Your task to perform on an android device: Open Amazon Image 0: 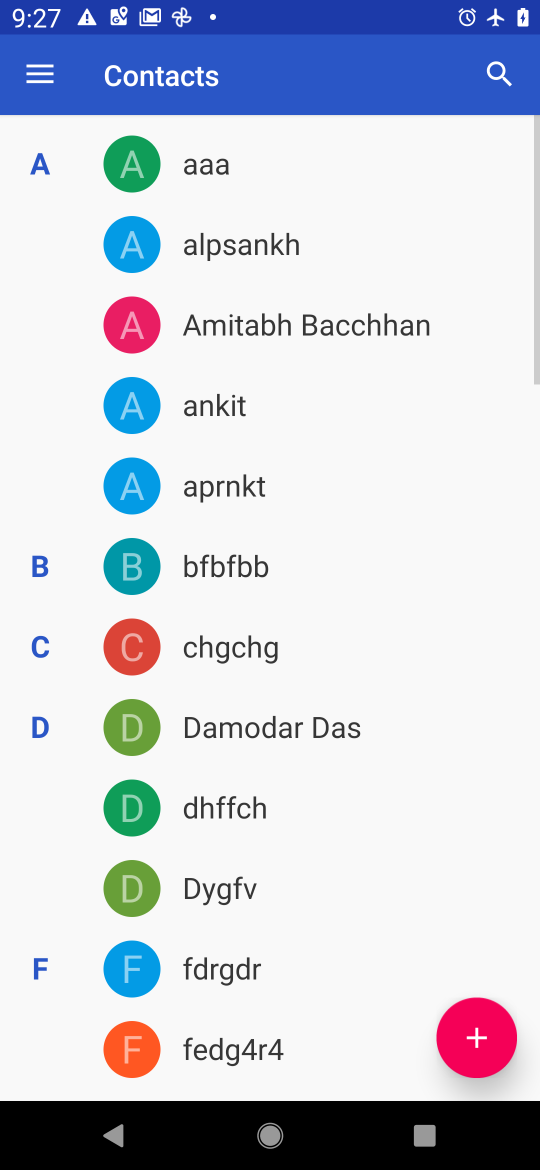
Step 0: press home button
Your task to perform on an android device: Open Amazon Image 1: 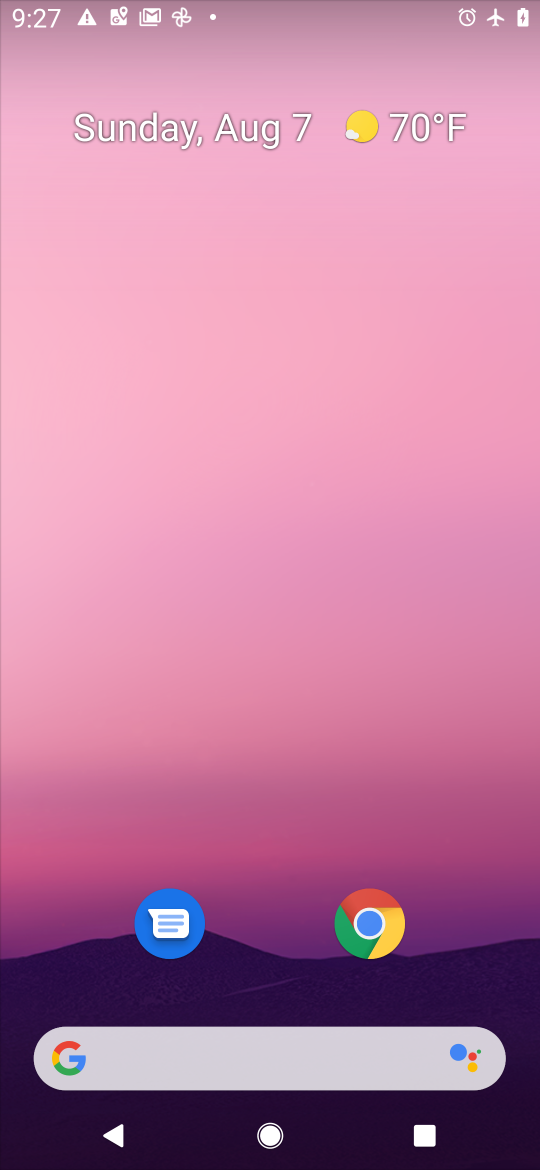
Step 1: drag from (496, 971) to (240, 36)
Your task to perform on an android device: Open Amazon Image 2: 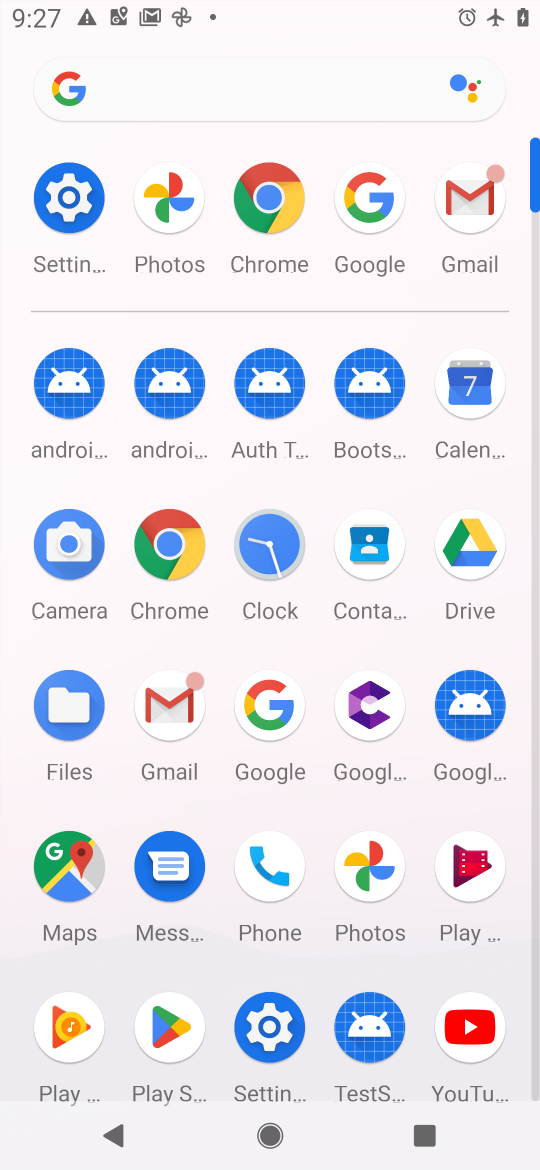
Step 2: click (375, 190)
Your task to perform on an android device: Open Amazon Image 3: 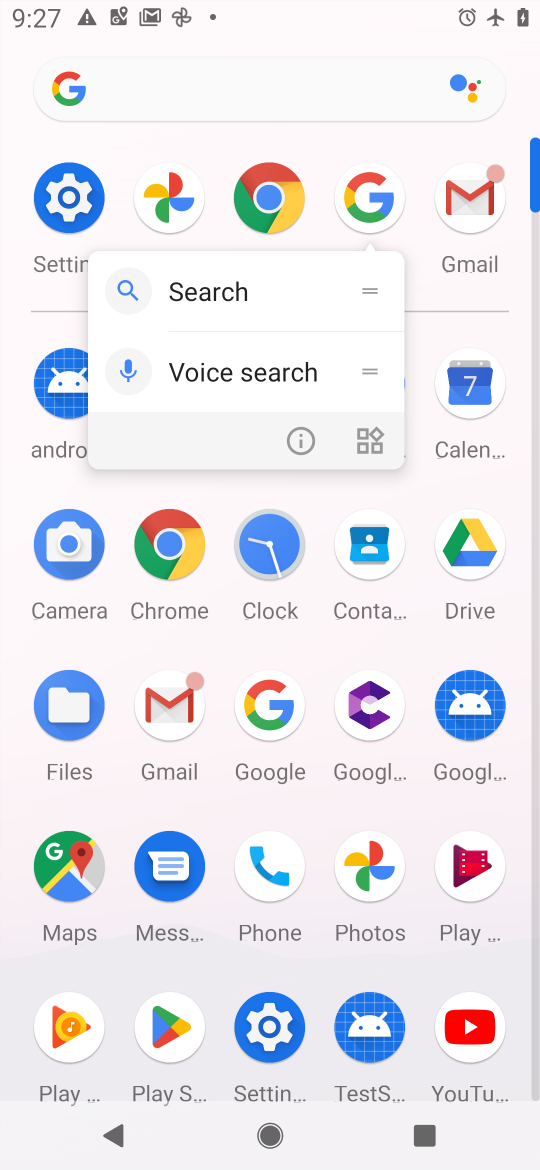
Step 3: click (375, 190)
Your task to perform on an android device: Open Amazon Image 4: 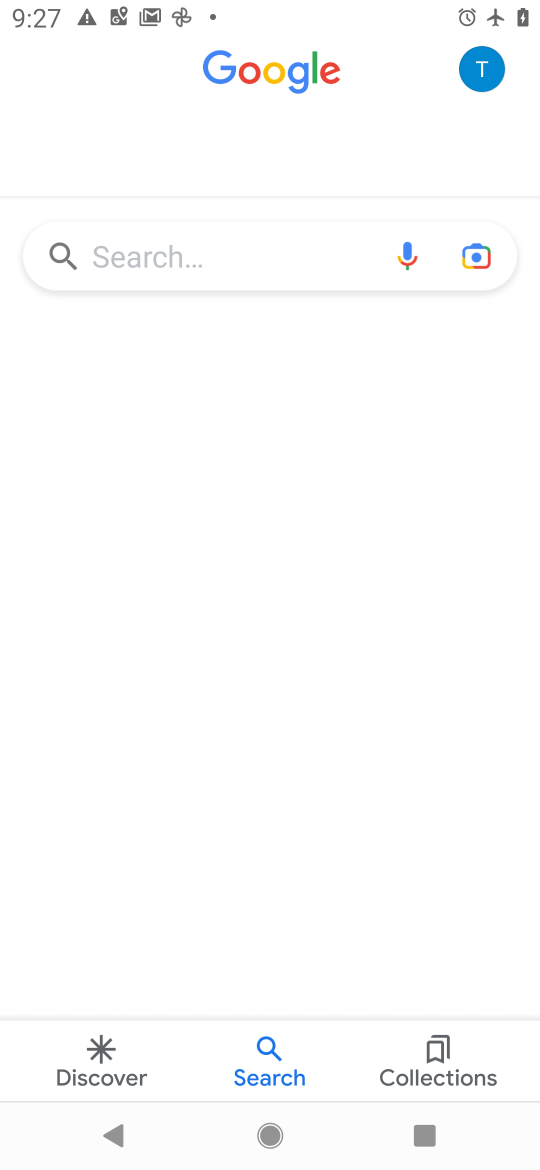
Step 4: click (177, 258)
Your task to perform on an android device: Open Amazon Image 5: 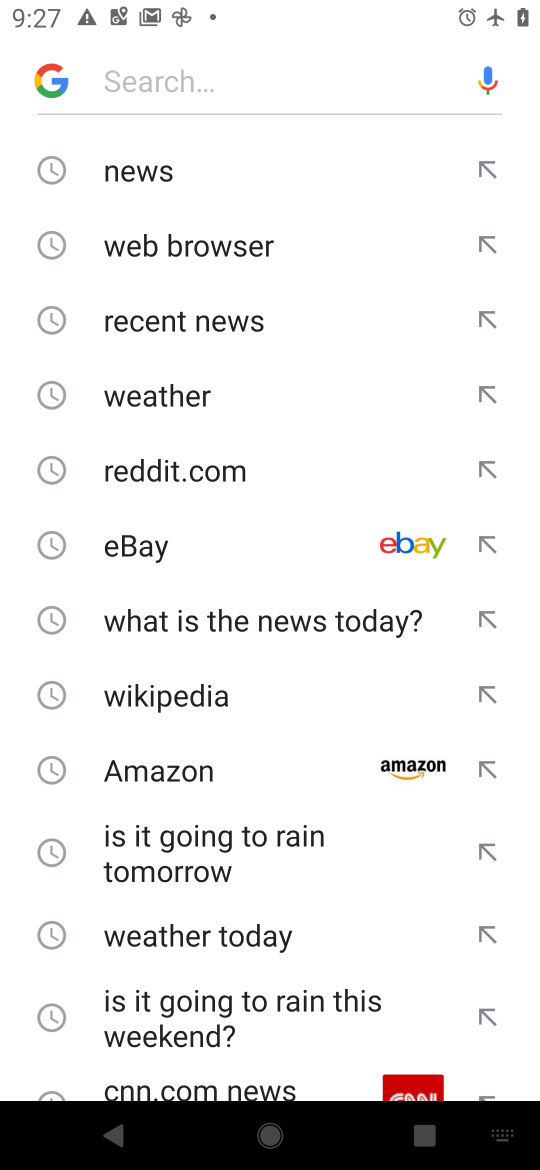
Step 5: click (189, 777)
Your task to perform on an android device: Open Amazon Image 6: 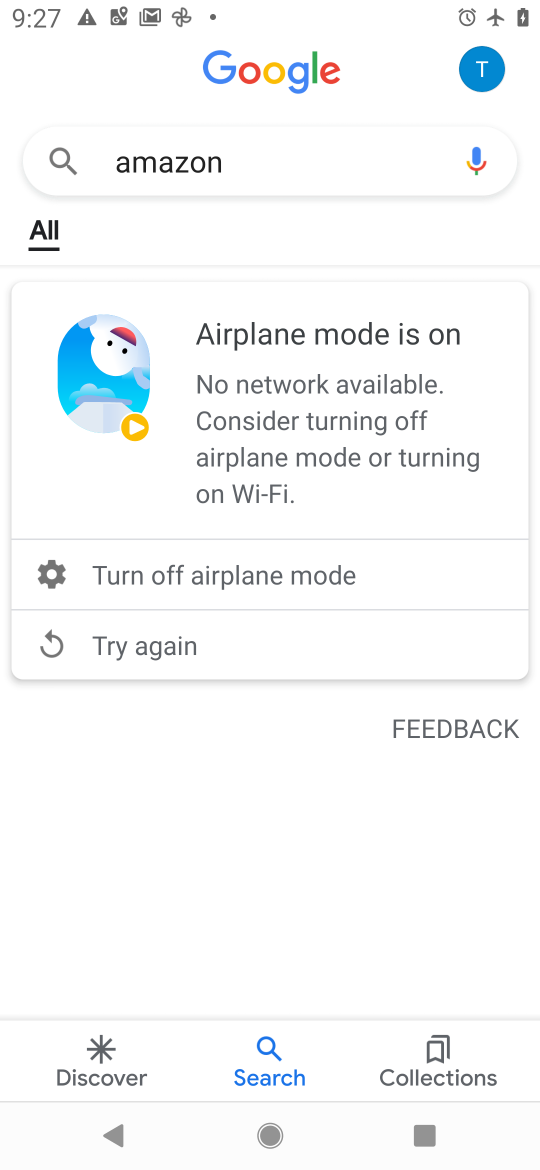
Step 6: task complete